Your task to perform on an android device: turn off improve location accuracy Image 0: 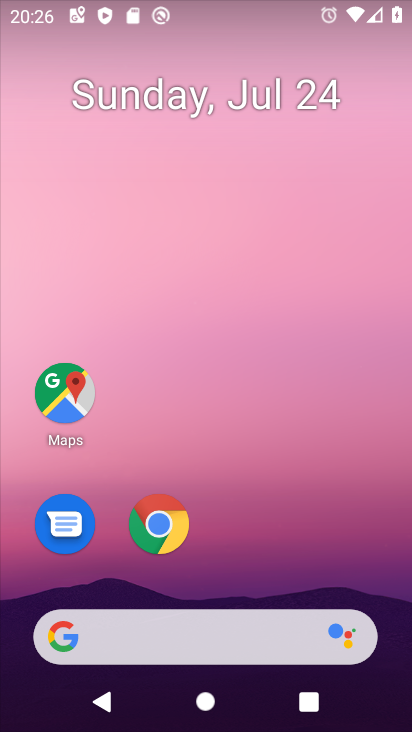
Step 0: drag from (253, 556) to (265, 56)
Your task to perform on an android device: turn off improve location accuracy Image 1: 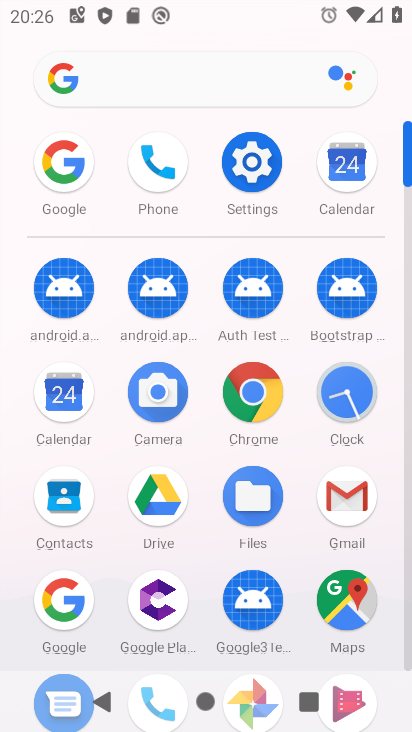
Step 1: click (261, 163)
Your task to perform on an android device: turn off improve location accuracy Image 2: 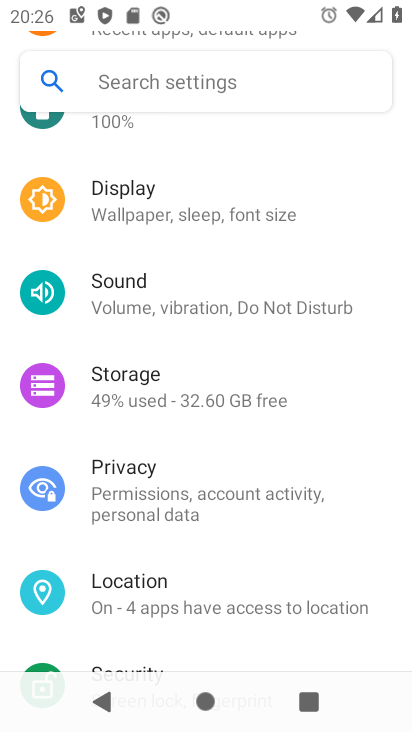
Step 2: click (212, 603)
Your task to perform on an android device: turn off improve location accuracy Image 3: 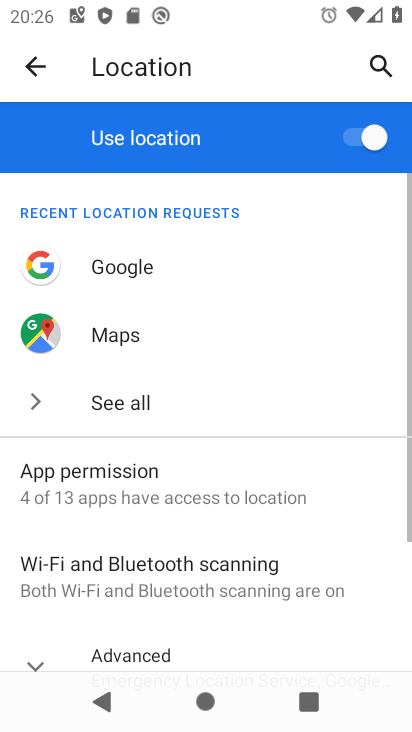
Step 3: drag from (150, 532) to (188, 169)
Your task to perform on an android device: turn off improve location accuracy Image 4: 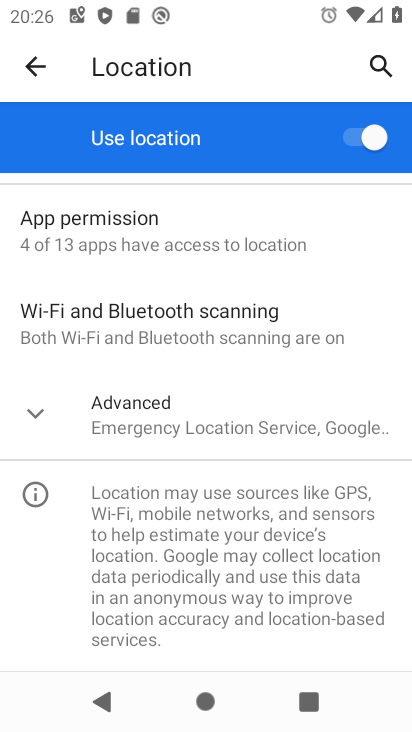
Step 4: click (39, 408)
Your task to perform on an android device: turn off improve location accuracy Image 5: 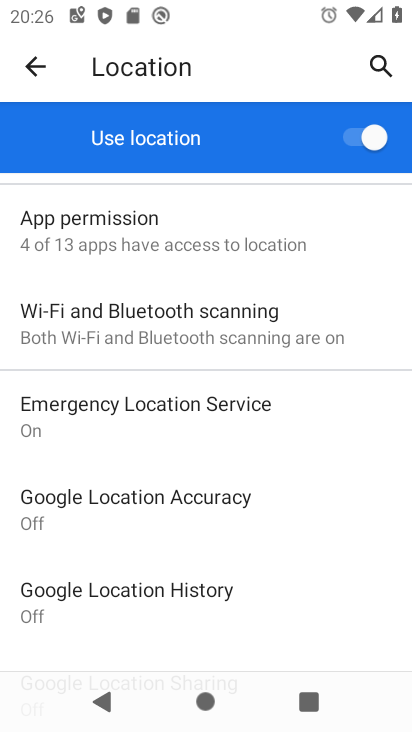
Step 5: click (127, 508)
Your task to perform on an android device: turn off improve location accuracy Image 6: 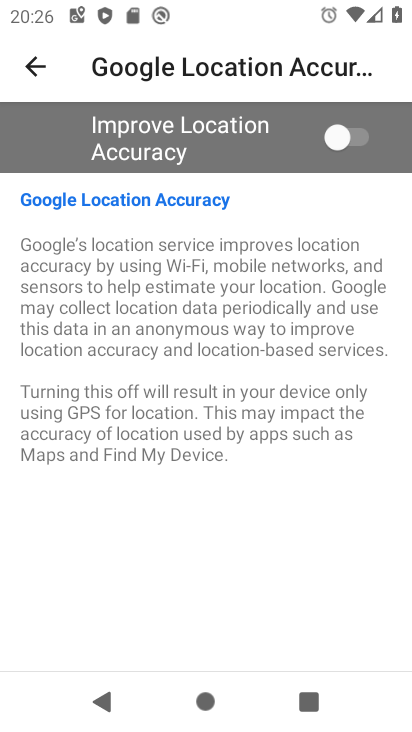
Step 6: task complete